Your task to perform on an android device: Open eBay Image 0: 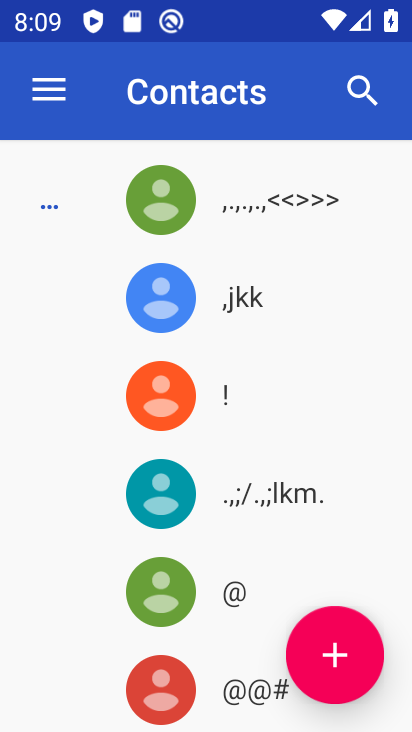
Step 0: press home button
Your task to perform on an android device: Open eBay Image 1: 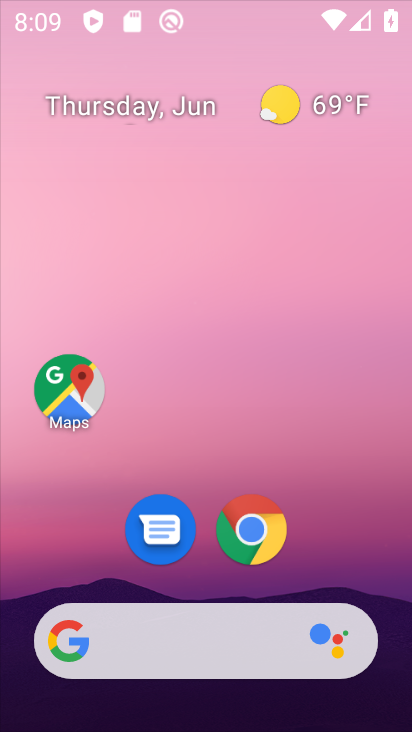
Step 1: drag from (189, 594) to (289, 8)
Your task to perform on an android device: Open eBay Image 2: 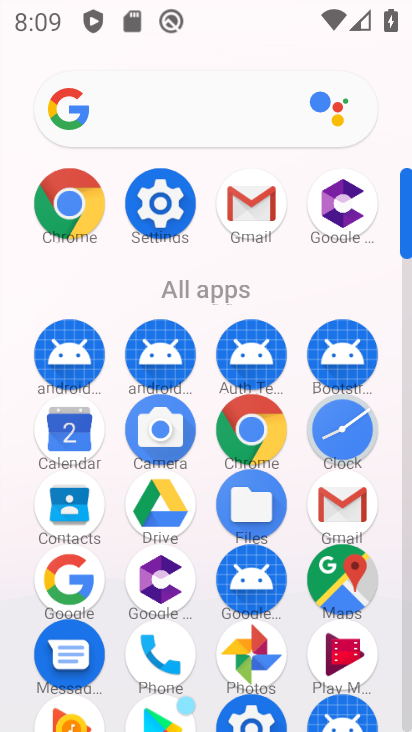
Step 2: click (78, 225)
Your task to perform on an android device: Open eBay Image 3: 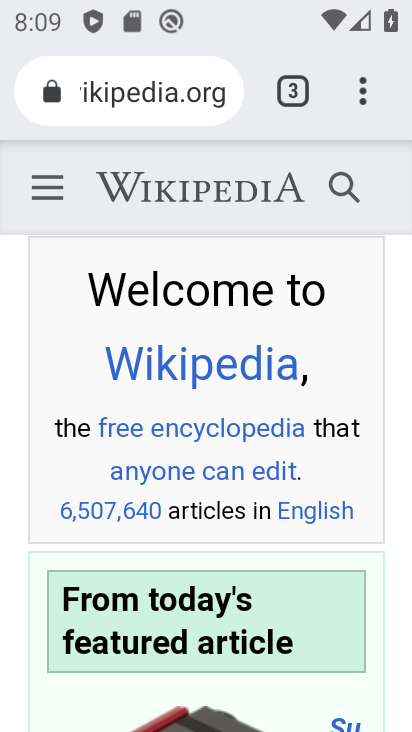
Step 3: click (279, 88)
Your task to perform on an android device: Open eBay Image 4: 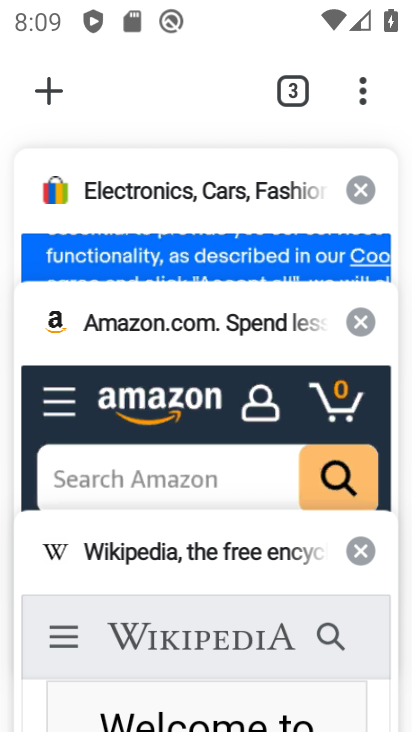
Step 4: click (95, 186)
Your task to perform on an android device: Open eBay Image 5: 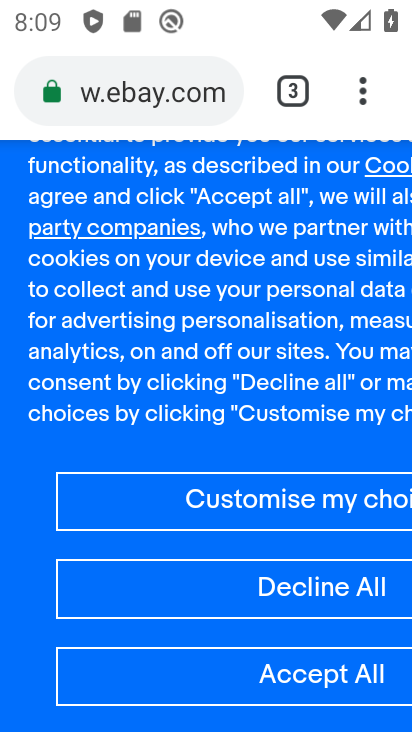
Step 5: task complete